Your task to perform on an android device: Go to accessibility settings Image 0: 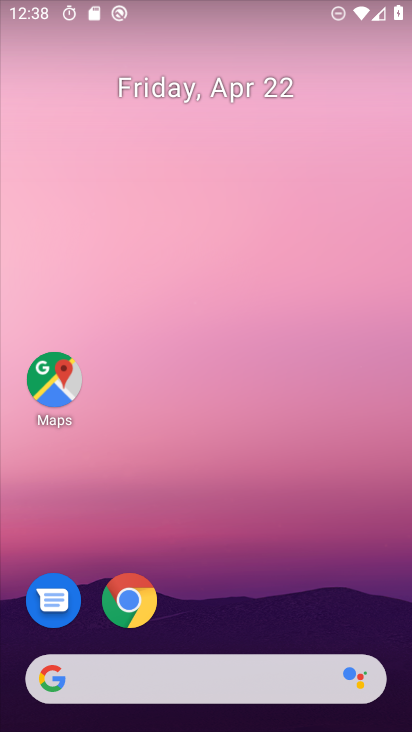
Step 0: drag from (249, 564) to (209, 13)
Your task to perform on an android device: Go to accessibility settings Image 1: 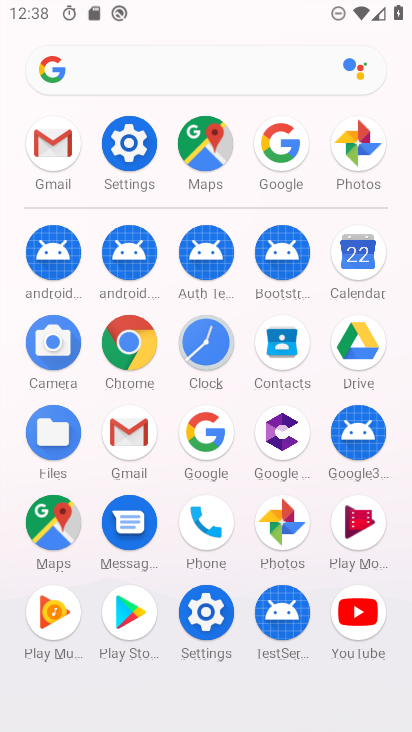
Step 1: click (129, 143)
Your task to perform on an android device: Go to accessibility settings Image 2: 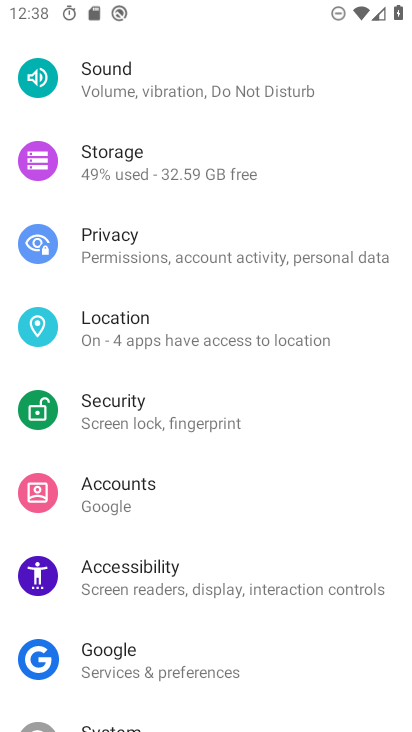
Step 2: click (151, 564)
Your task to perform on an android device: Go to accessibility settings Image 3: 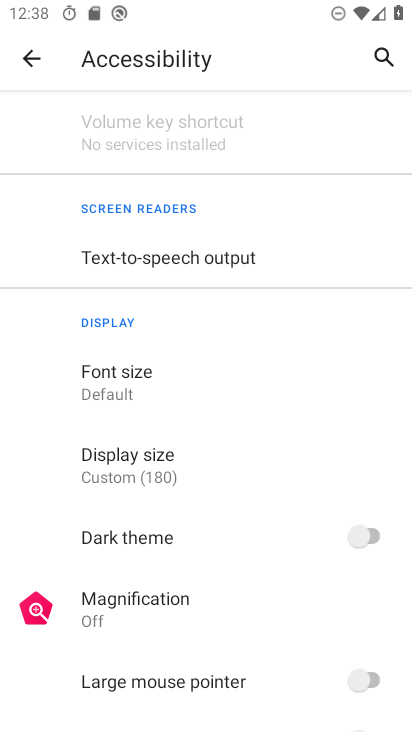
Step 3: task complete